Your task to perform on an android device: Open notification settings Image 0: 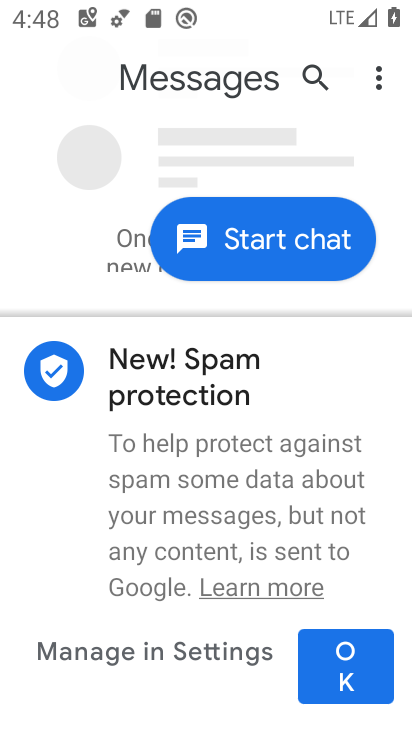
Step 0: press home button
Your task to perform on an android device: Open notification settings Image 1: 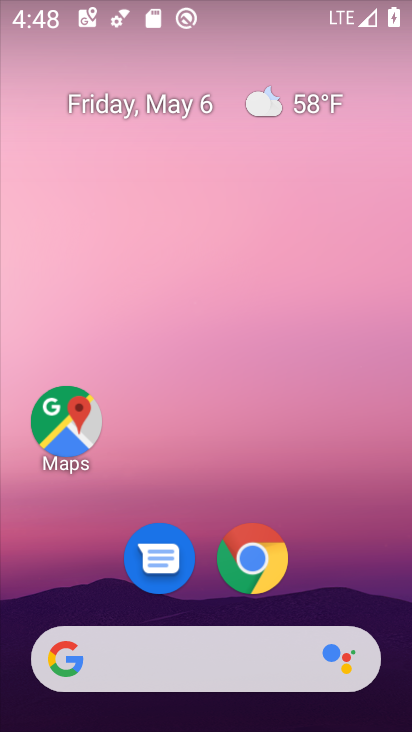
Step 1: drag from (311, 609) to (352, 10)
Your task to perform on an android device: Open notification settings Image 2: 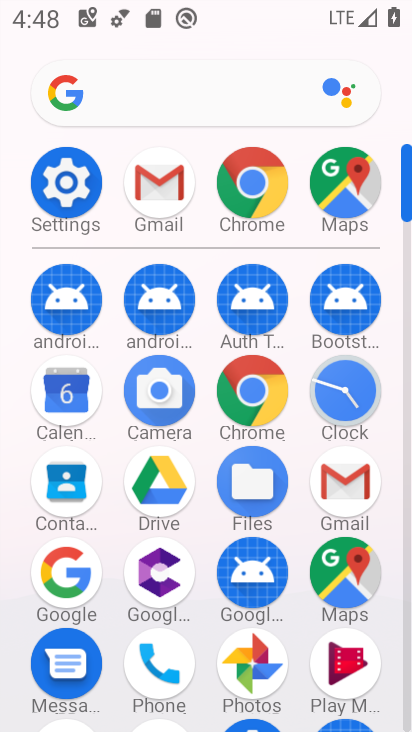
Step 2: drag from (298, 672) to (268, 142)
Your task to perform on an android device: Open notification settings Image 3: 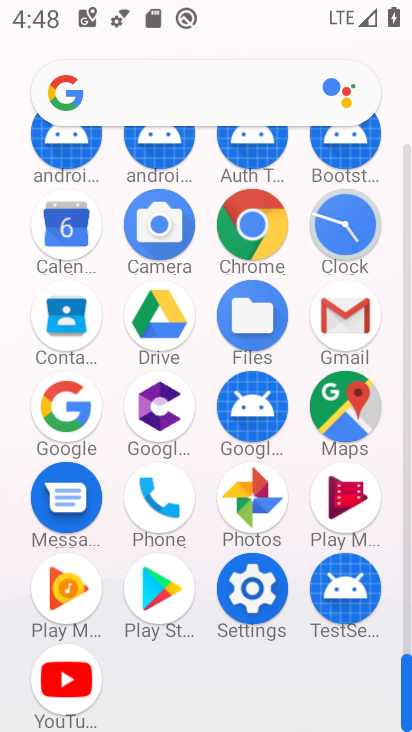
Step 3: click (253, 582)
Your task to perform on an android device: Open notification settings Image 4: 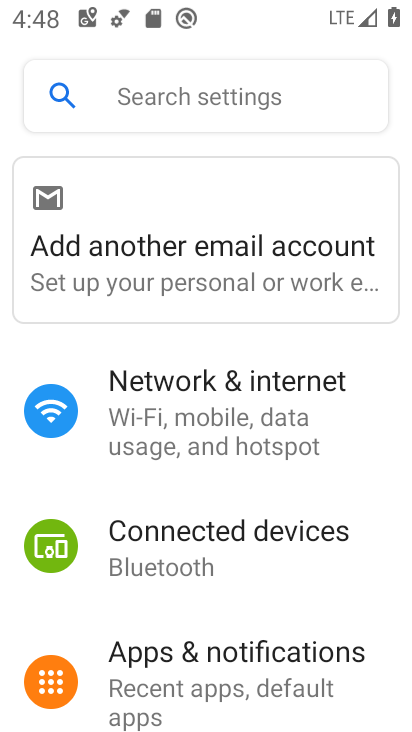
Step 4: click (324, 679)
Your task to perform on an android device: Open notification settings Image 5: 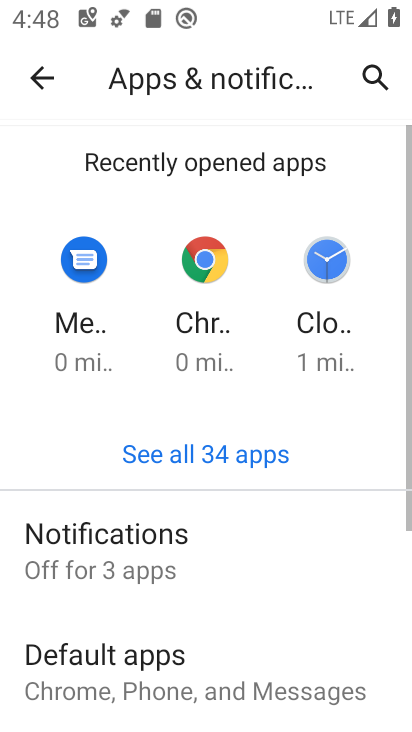
Step 5: drag from (324, 679) to (276, 359)
Your task to perform on an android device: Open notification settings Image 6: 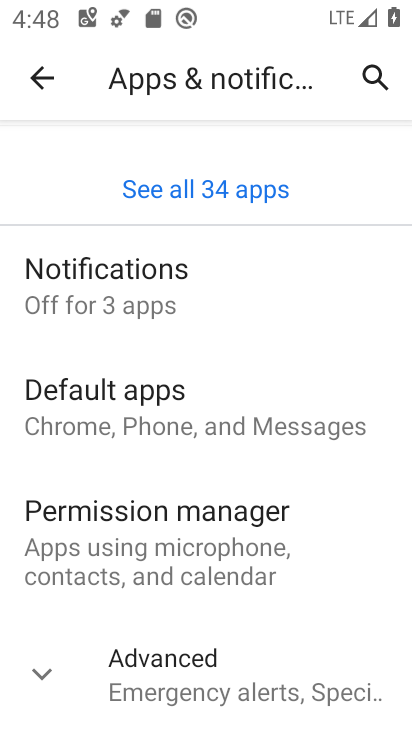
Step 6: click (168, 306)
Your task to perform on an android device: Open notification settings Image 7: 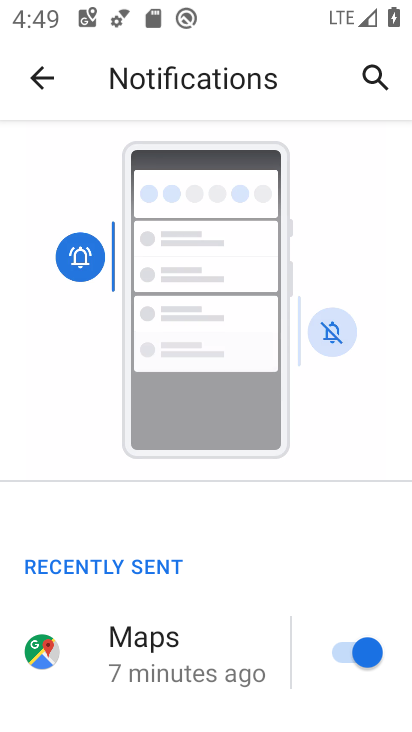
Step 7: drag from (264, 662) to (268, 97)
Your task to perform on an android device: Open notification settings Image 8: 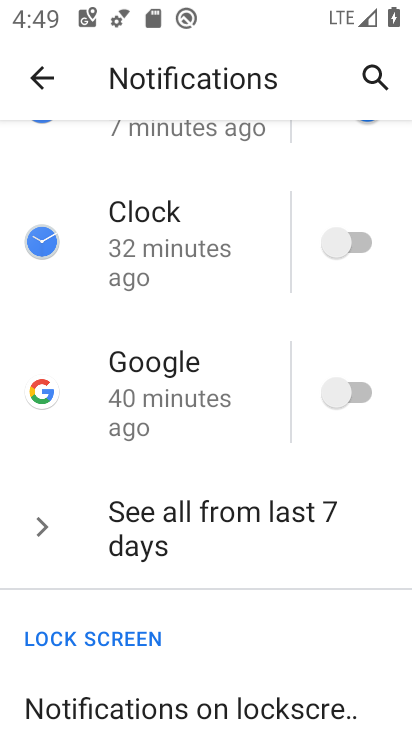
Step 8: drag from (224, 687) to (173, 190)
Your task to perform on an android device: Open notification settings Image 9: 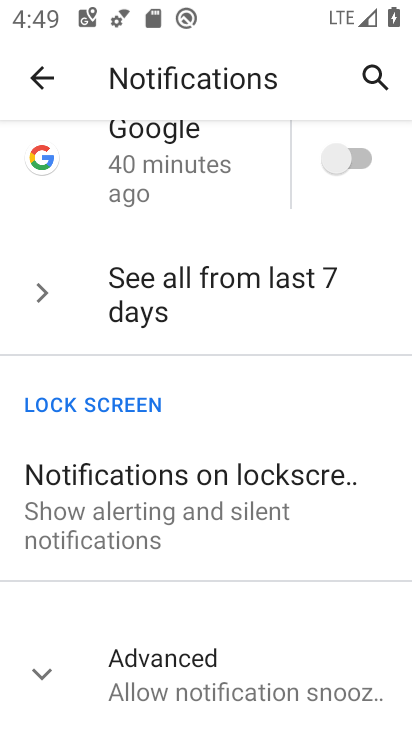
Step 9: drag from (204, 273) to (282, 696)
Your task to perform on an android device: Open notification settings Image 10: 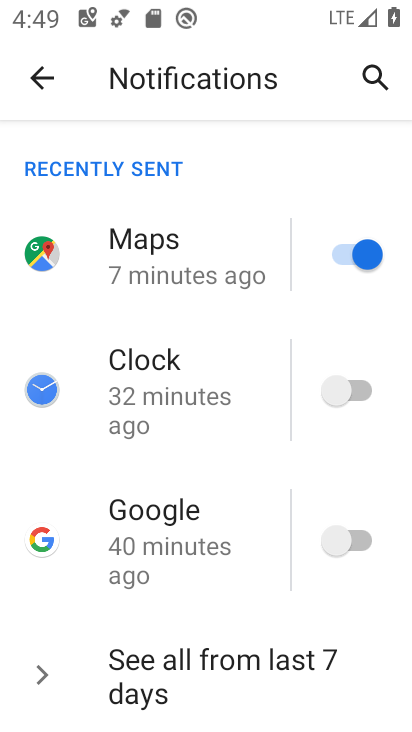
Step 10: click (335, 255)
Your task to perform on an android device: Open notification settings Image 11: 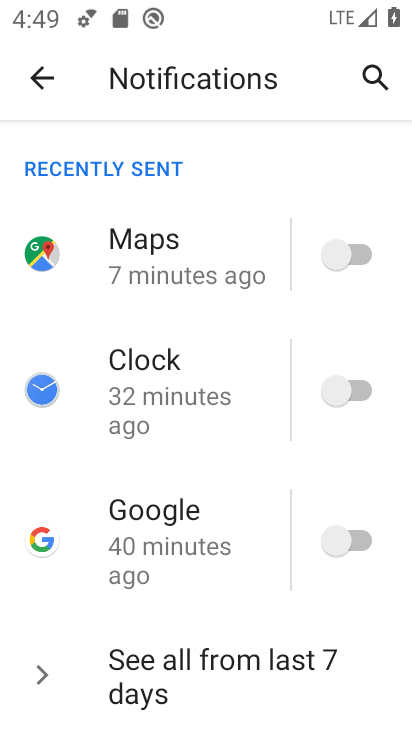
Step 11: task complete